Your task to perform on an android device: Open maps Image 0: 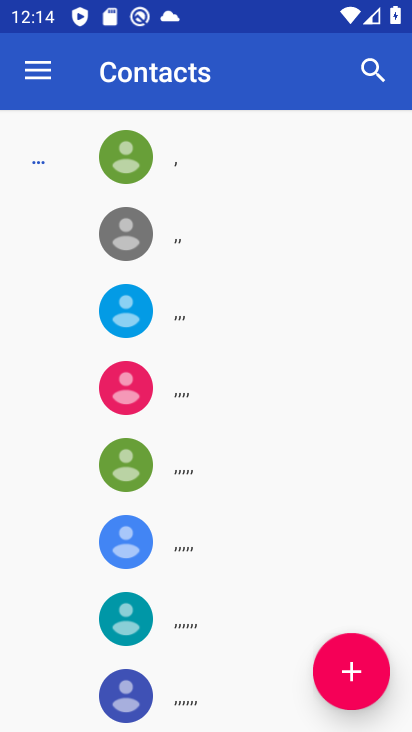
Step 0: press home button
Your task to perform on an android device: Open maps Image 1: 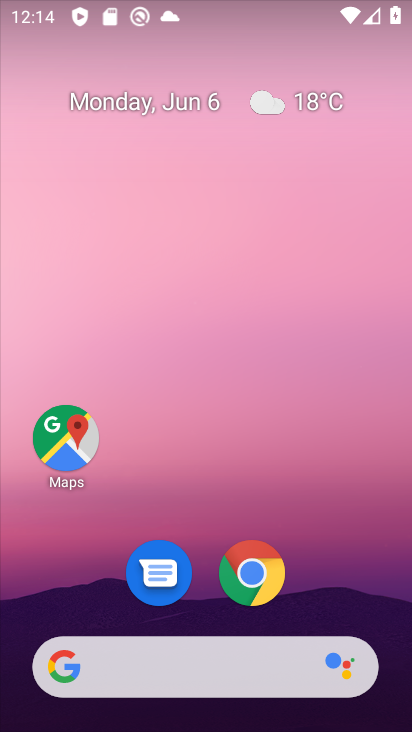
Step 1: click (65, 442)
Your task to perform on an android device: Open maps Image 2: 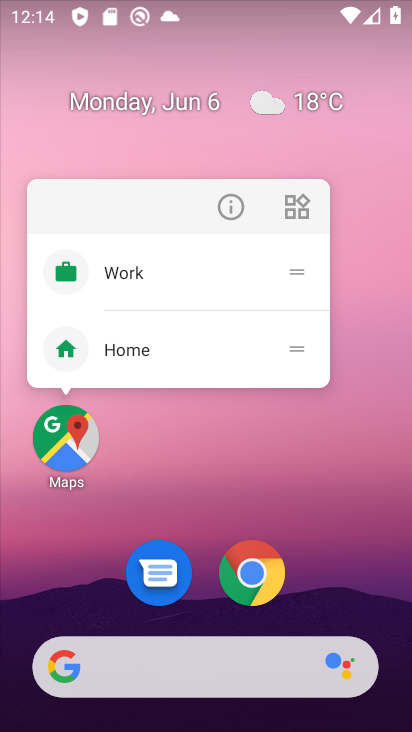
Step 2: click (65, 459)
Your task to perform on an android device: Open maps Image 3: 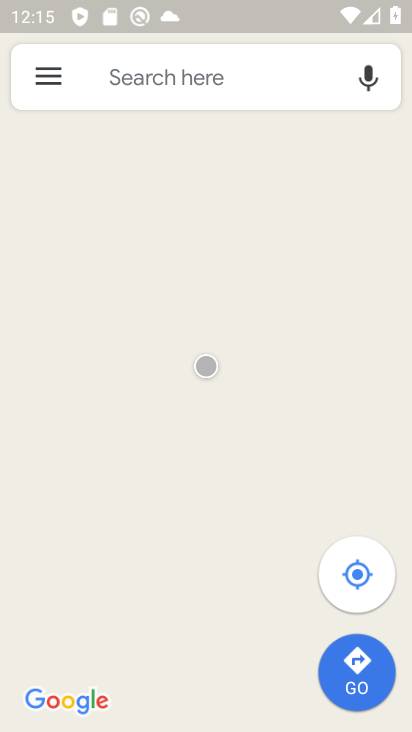
Step 3: task complete